Your task to perform on an android device: uninstall "Google Chat" Image 0: 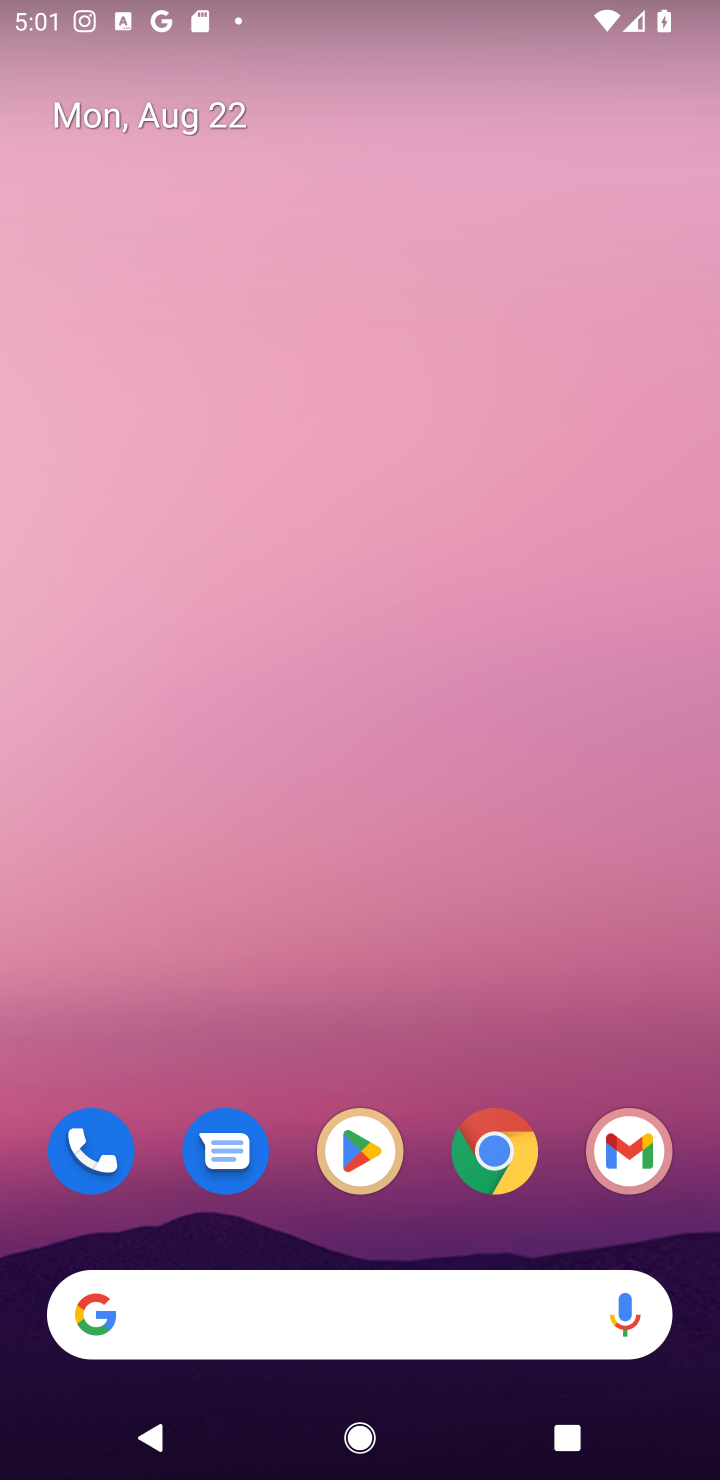
Step 0: click (366, 1156)
Your task to perform on an android device: uninstall "Google Chat" Image 1: 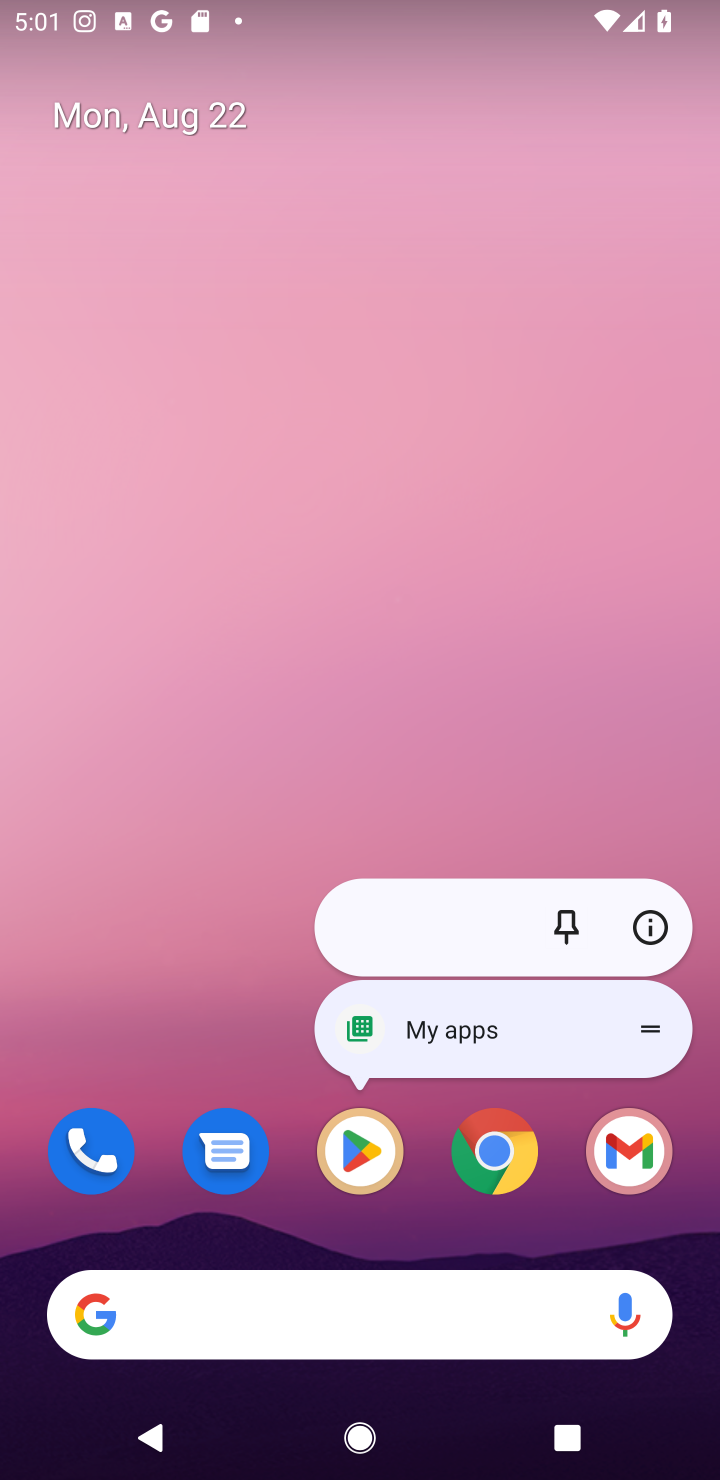
Step 1: click (357, 1165)
Your task to perform on an android device: uninstall "Google Chat" Image 2: 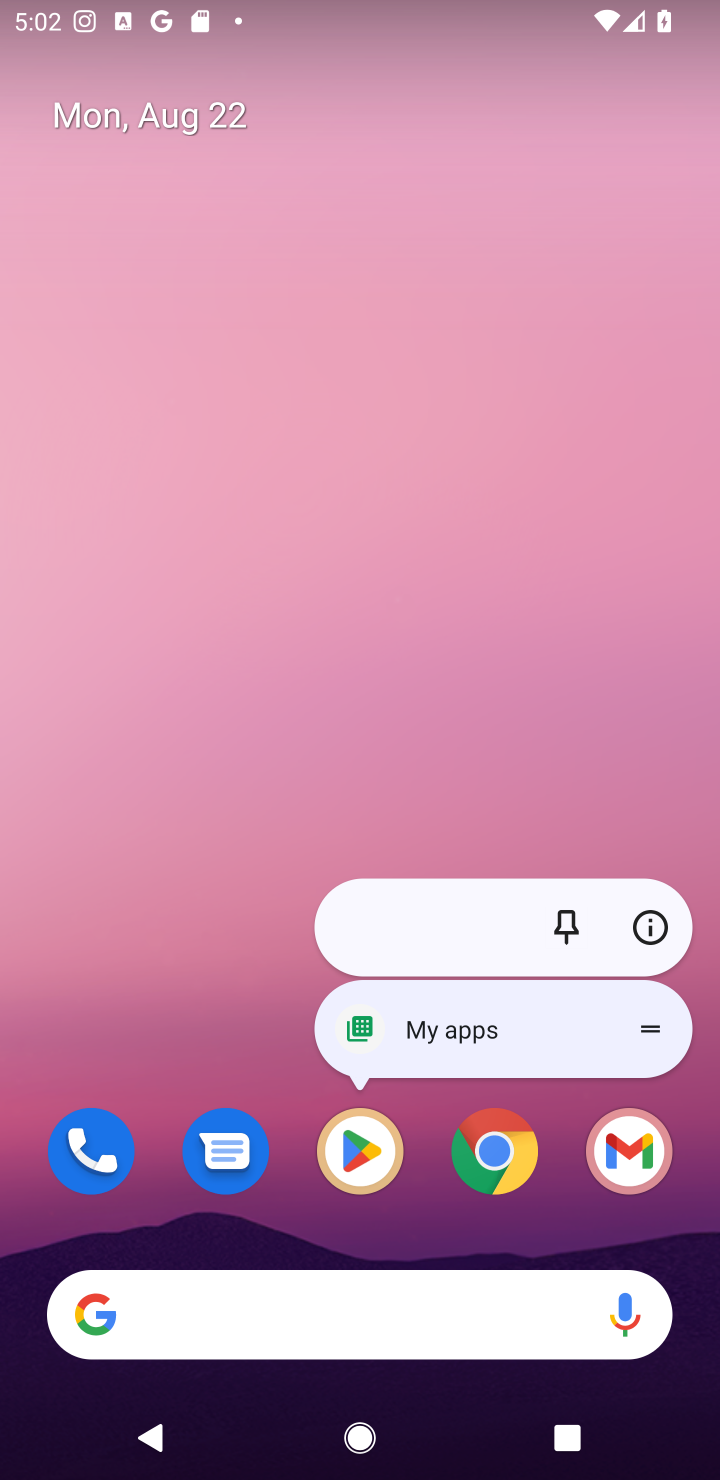
Step 2: click (351, 1169)
Your task to perform on an android device: uninstall "Google Chat" Image 3: 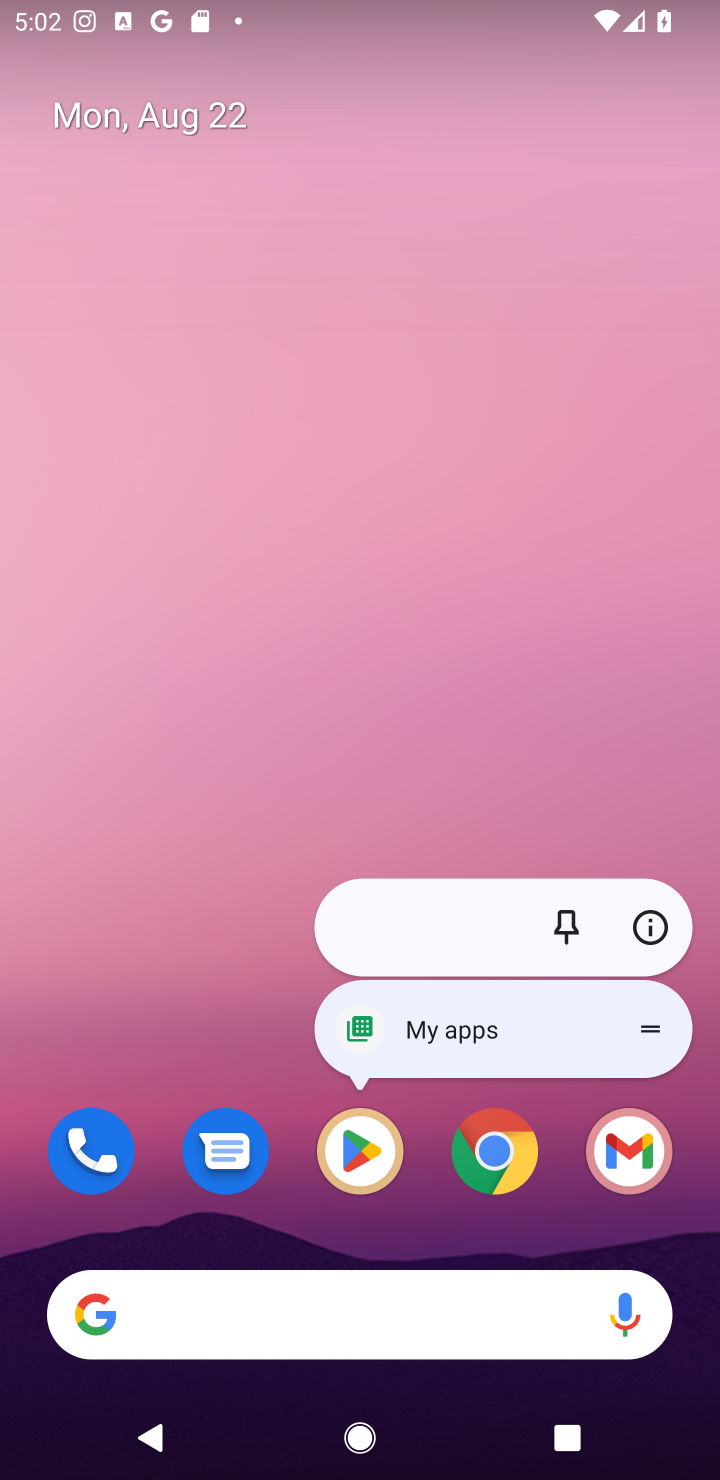
Step 3: click (351, 1171)
Your task to perform on an android device: uninstall "Google Chat" Image 4: 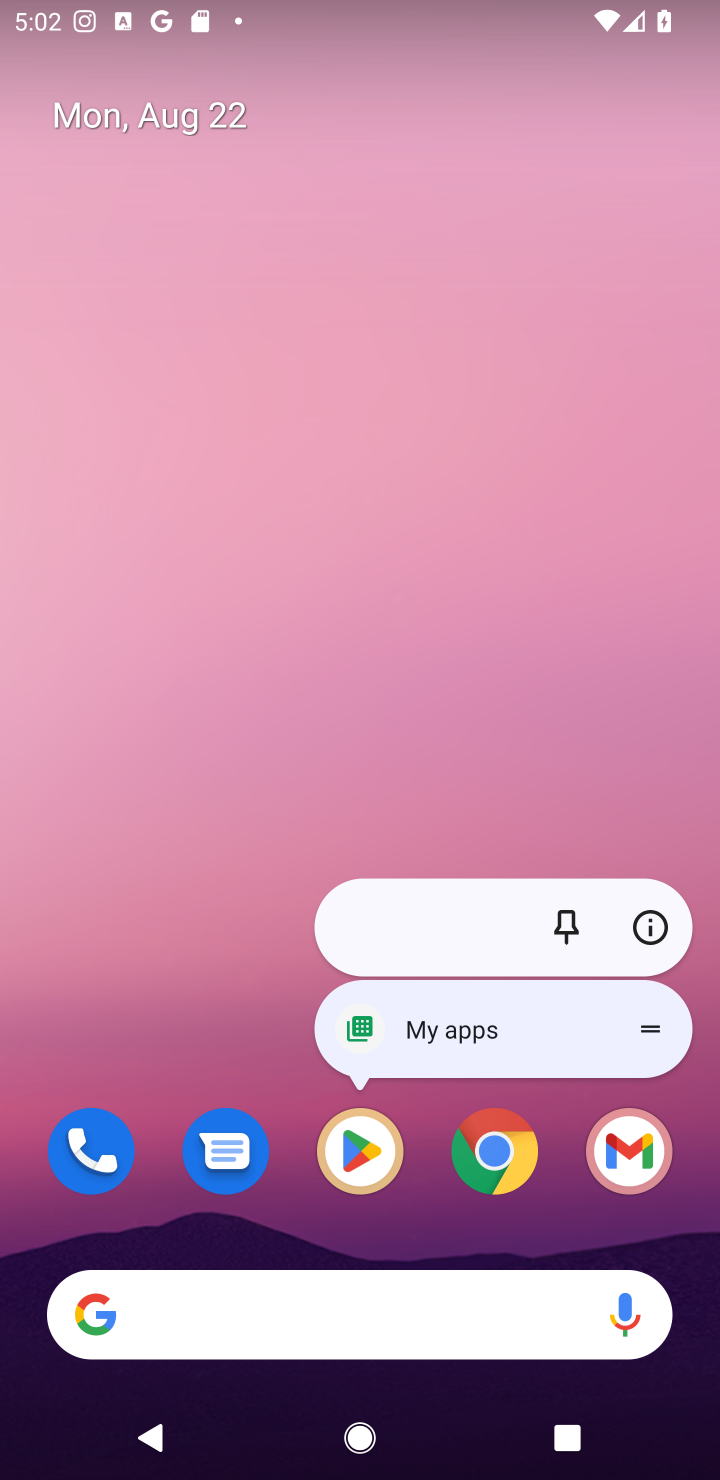
Step 4: click (359, 1163)
Your task to perform on an android device: uninstall "Google Chat" Image 5: 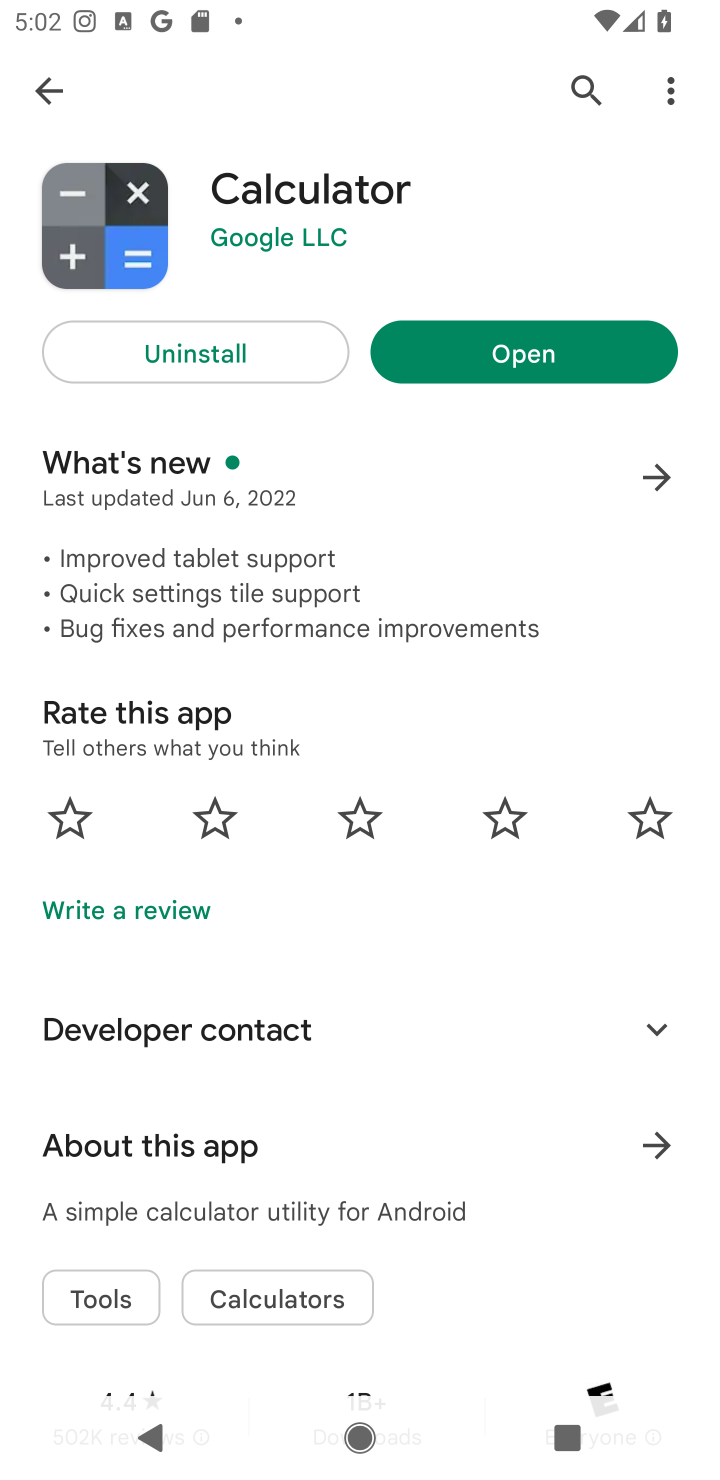
Step 5: click (578, 81)
Your task to perform on an android device: uninstall "Google Chat" Image 6: 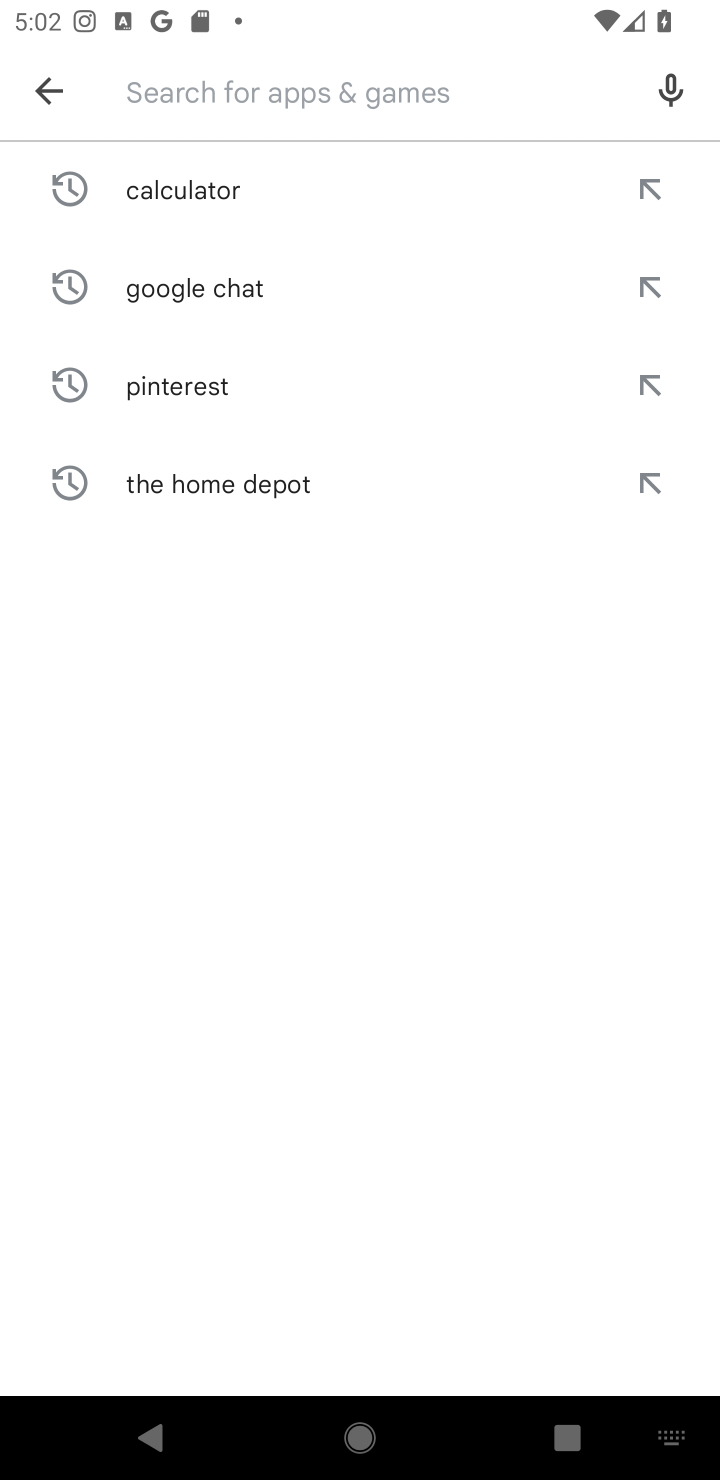
Step 6: type "Google Chat"
Your task to perform on an android device: uninstall "Google Chat" Image 7: 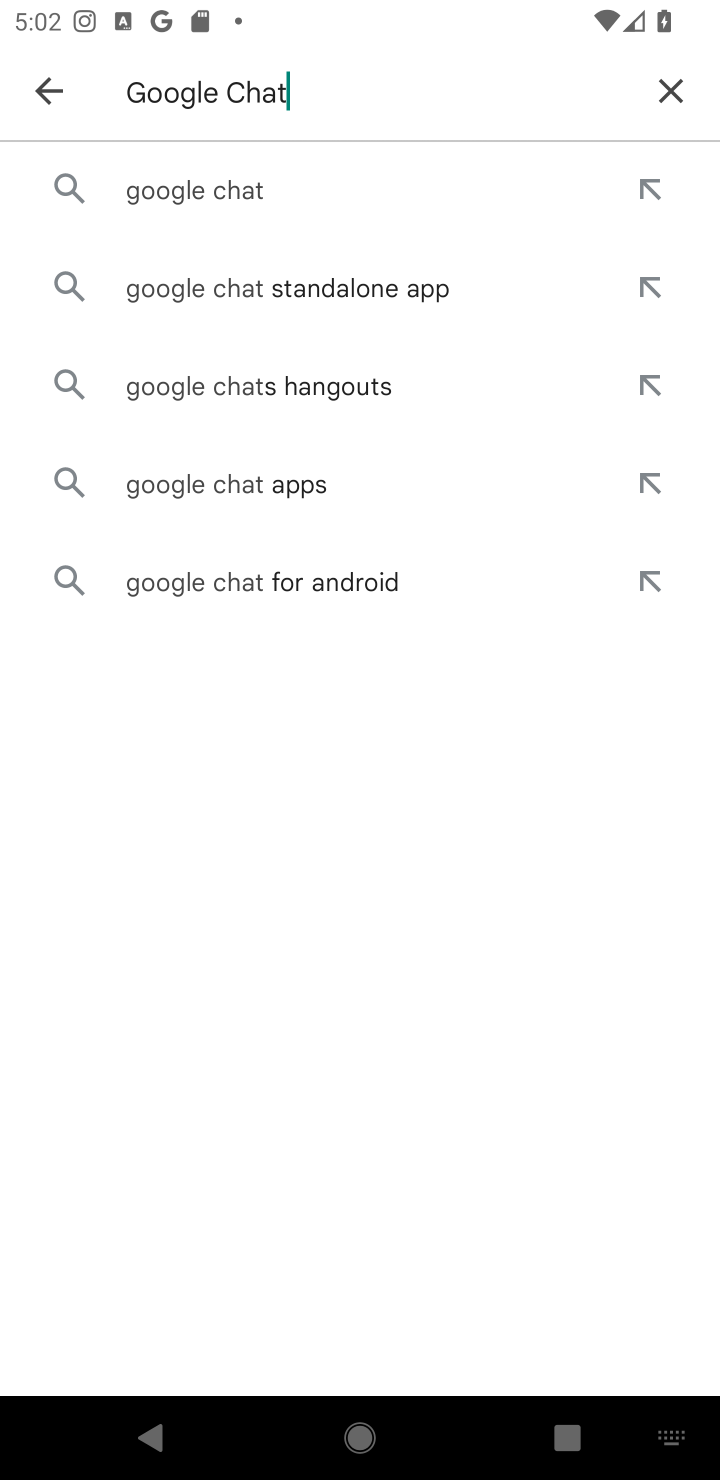
Step 7: click (157, 199)
Your task to perform on an android device: uninstall "Google Chat" Image 8: 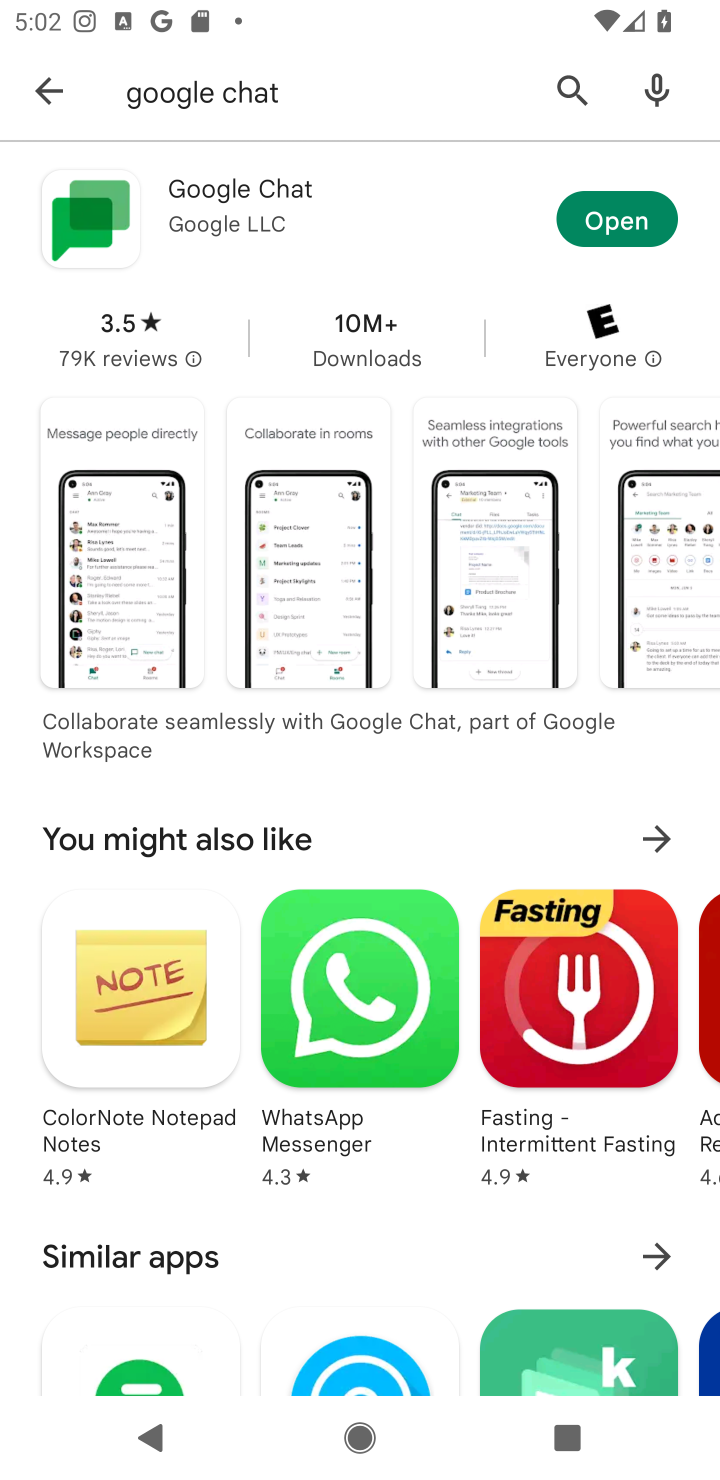
Step 8: click (157, 190)
Your task to perform on an android device: uninstall "Google Chat" Image 9: 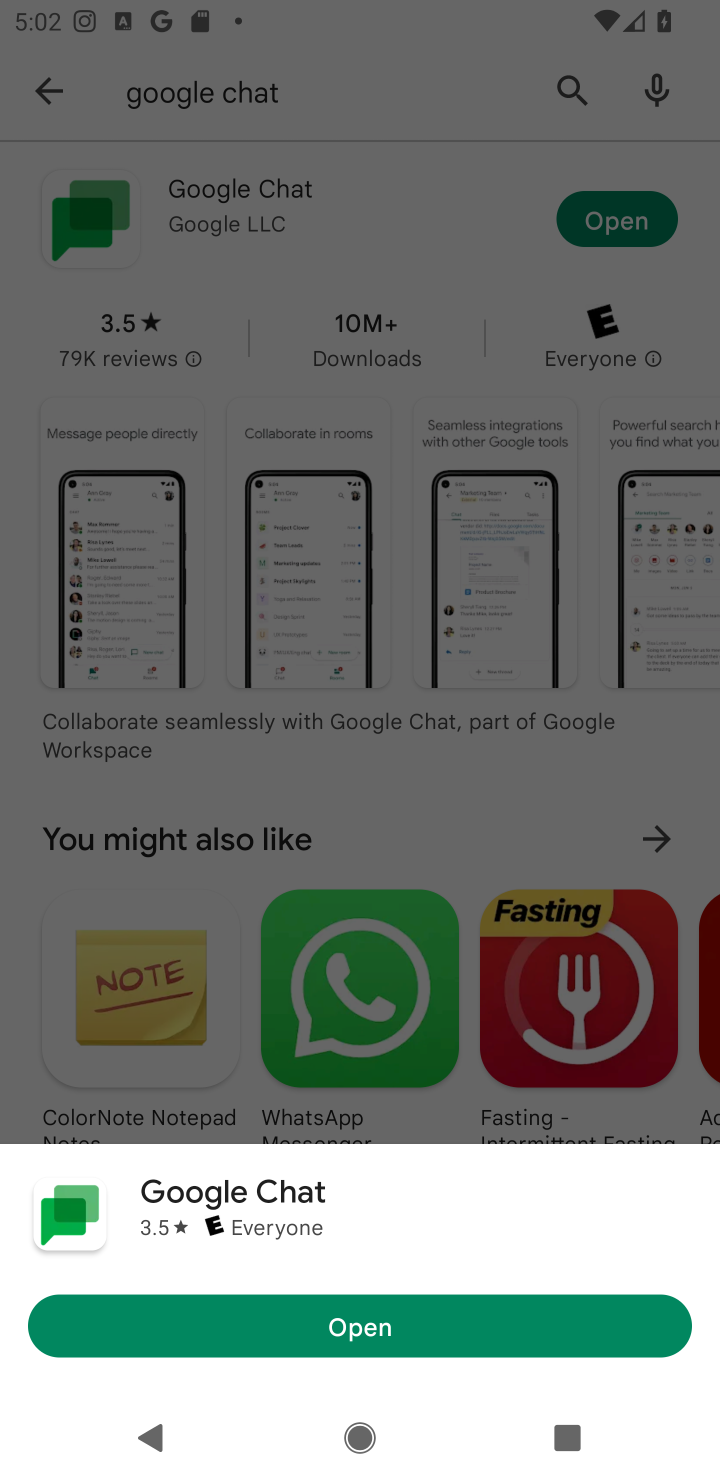
Step 9: click (76, 243)
Your task to perform on an android device: uninstall "Google Chat" Image 10: 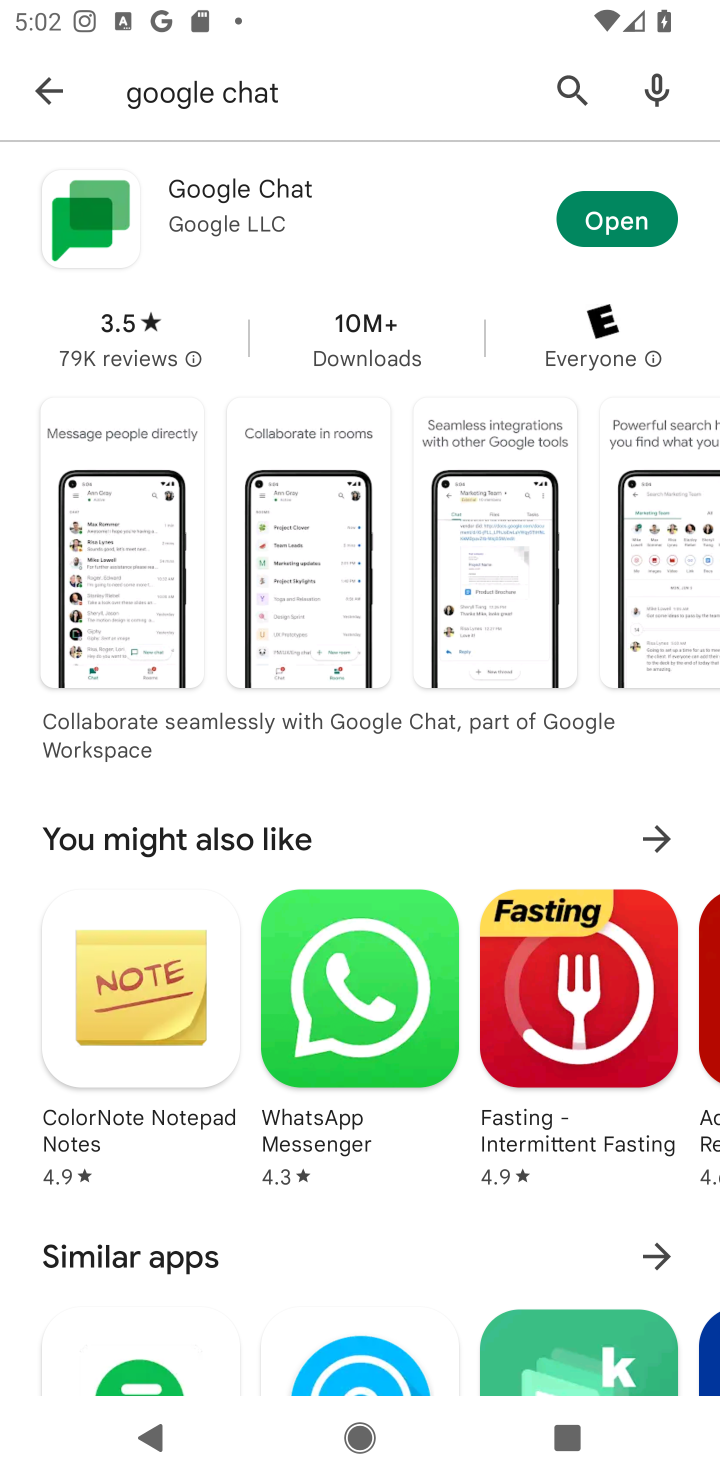
Step 10: click (95, 195)
Your task to perform on an android device: uninstall "Google Chat" Image 11: 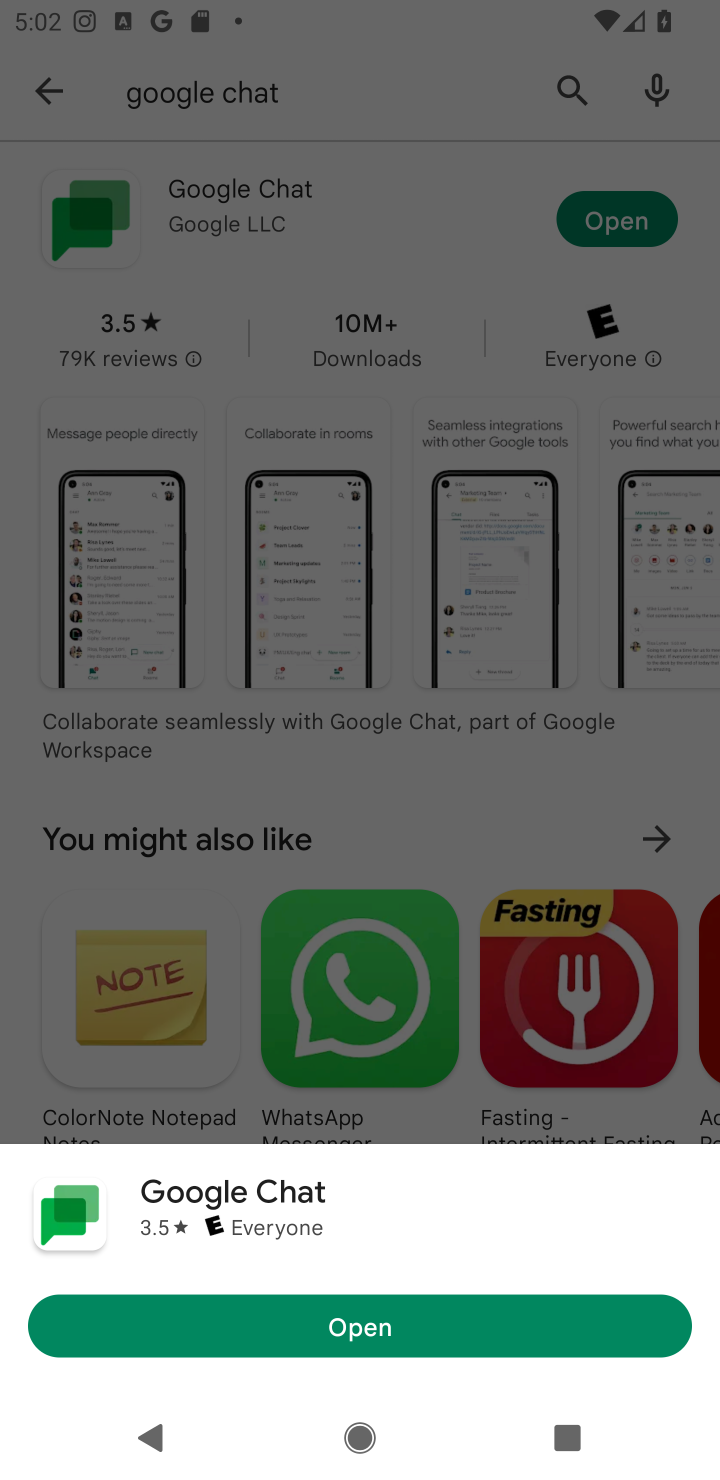
Step 11: click (231, 209)
Your task to perform on an android device: uninstall "Google Chat" Image 12: 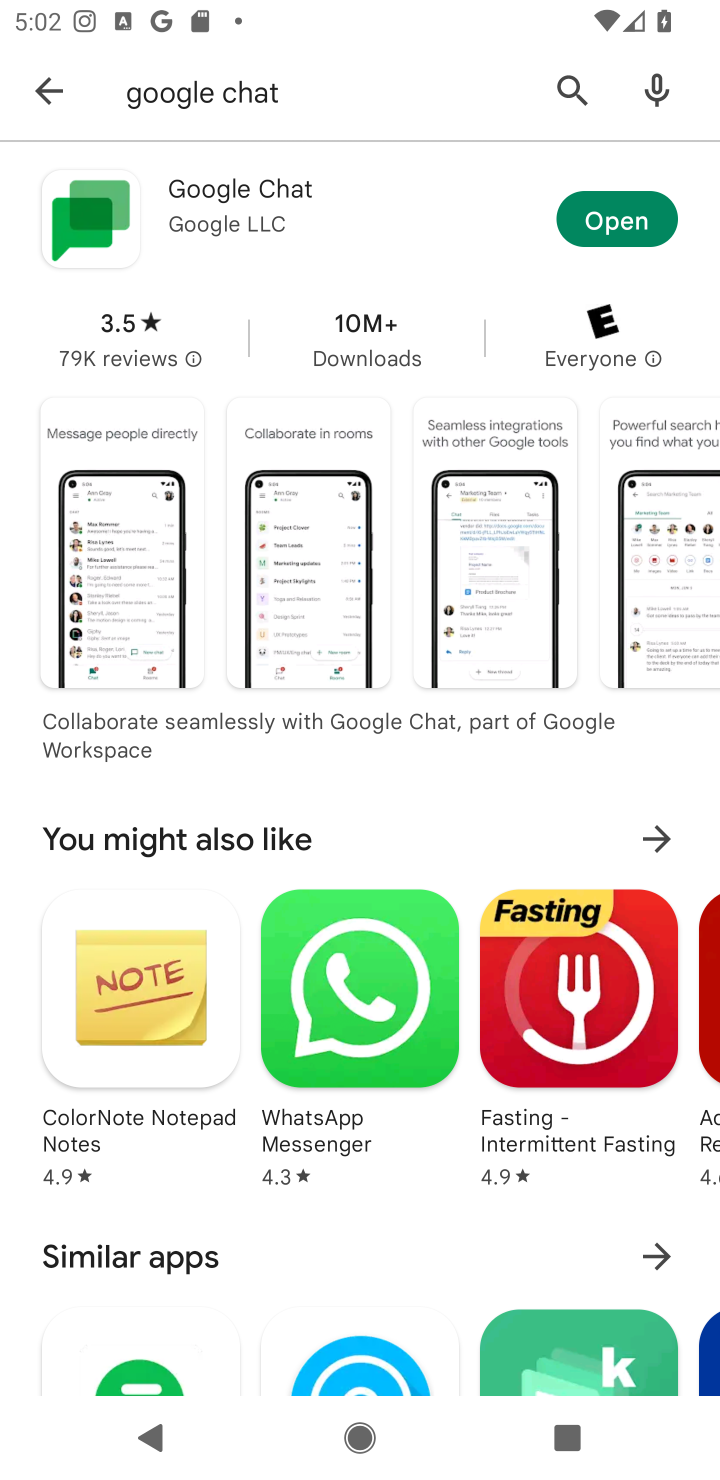
Step 12: click (205, 189)
Your task to perform on an android device: uninstall "Google Chat" Image 13: 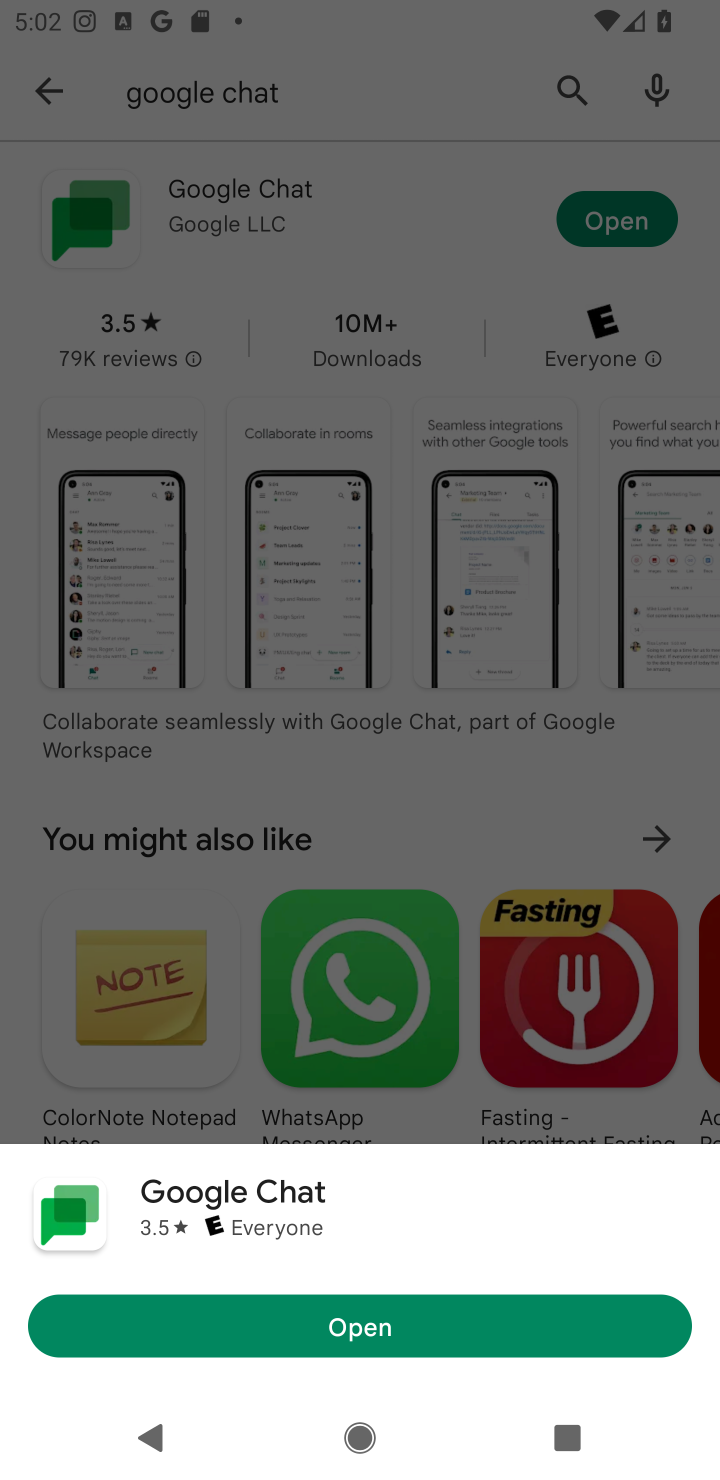
Step 13: click (98, 233)
Your task to perform on an android device: uninstall "Google Chat" Image 14: 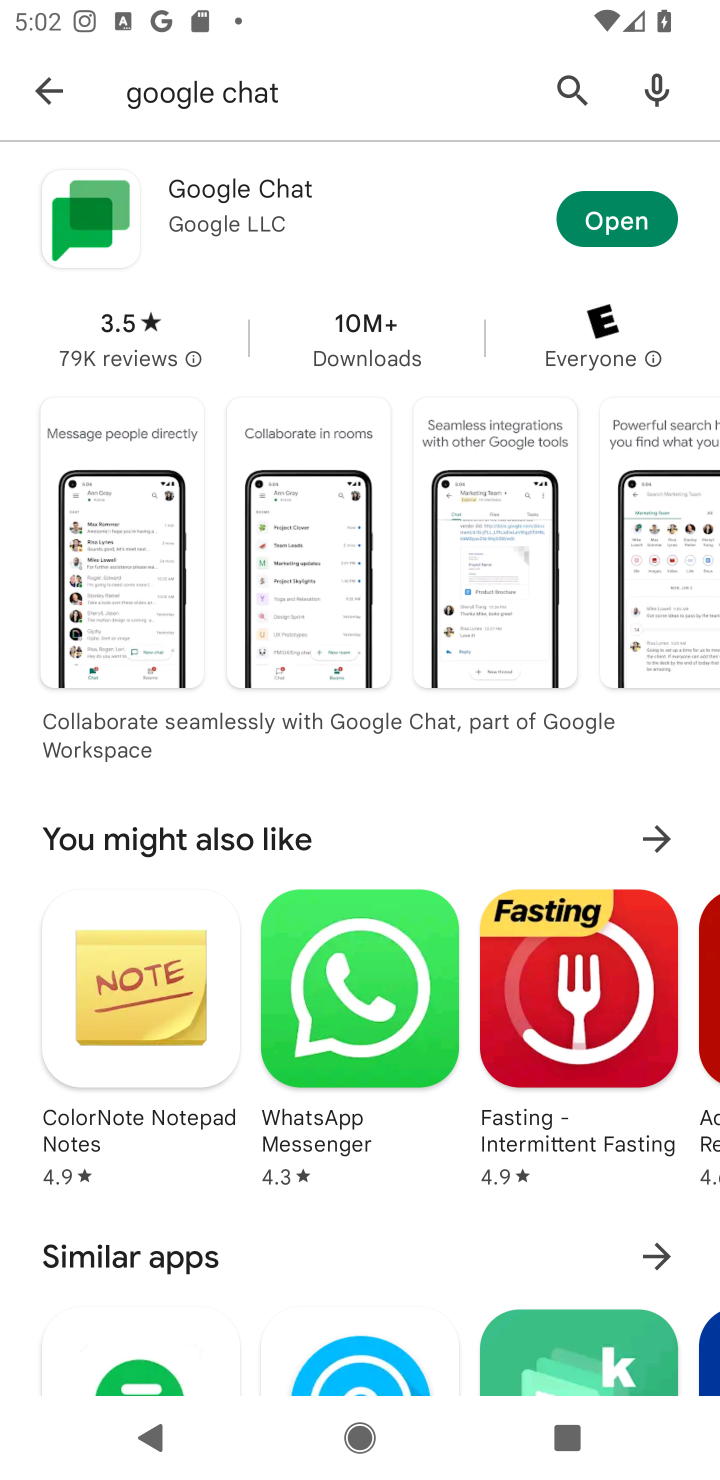
Step 14: click (98, 220)
Your task to perform on an android device: uninstall "Google Chat" Image 15: 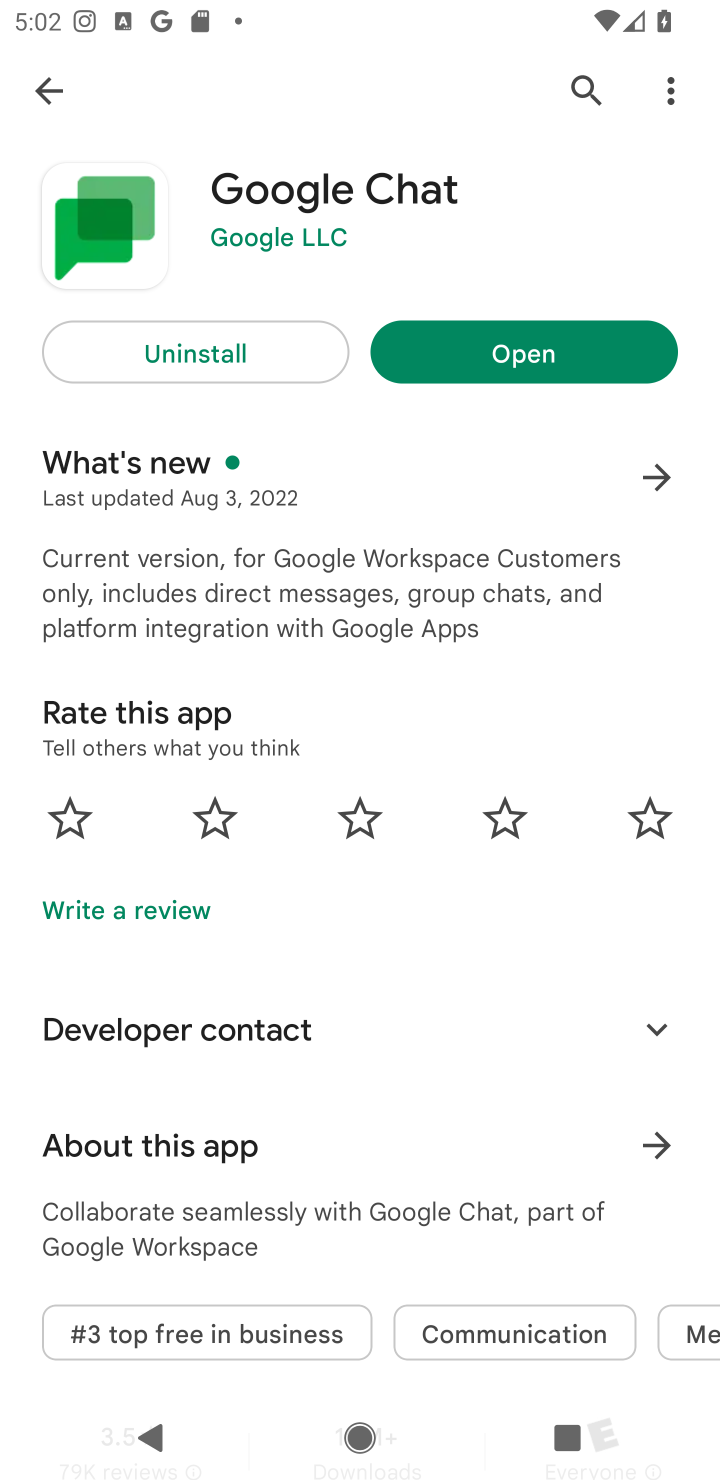
Step 15: click (187, 349)
Your task to perform on an android device: uninstall "Google Chat" Image 16: 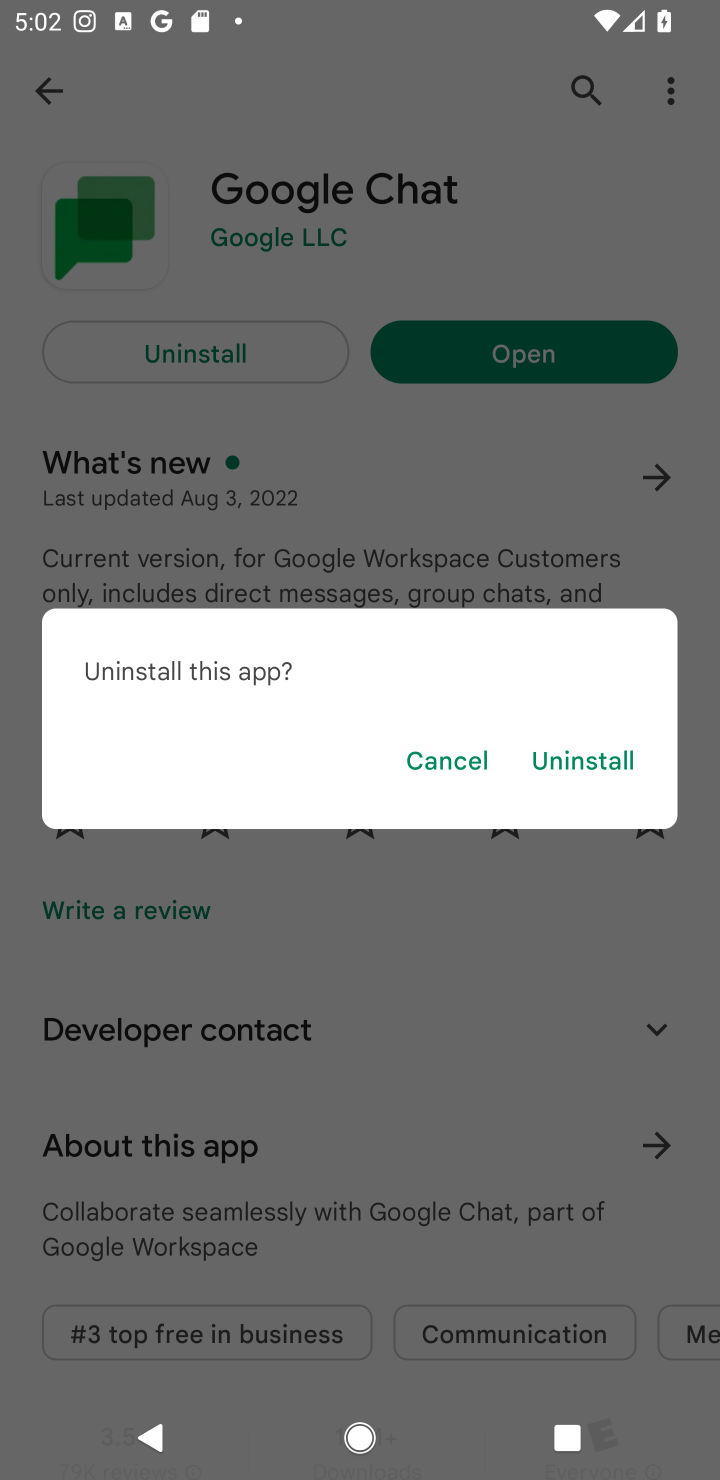
Step 16: click (575, 765)
Your task to perform on an android device: uninstall "Google Chat" Image 17: 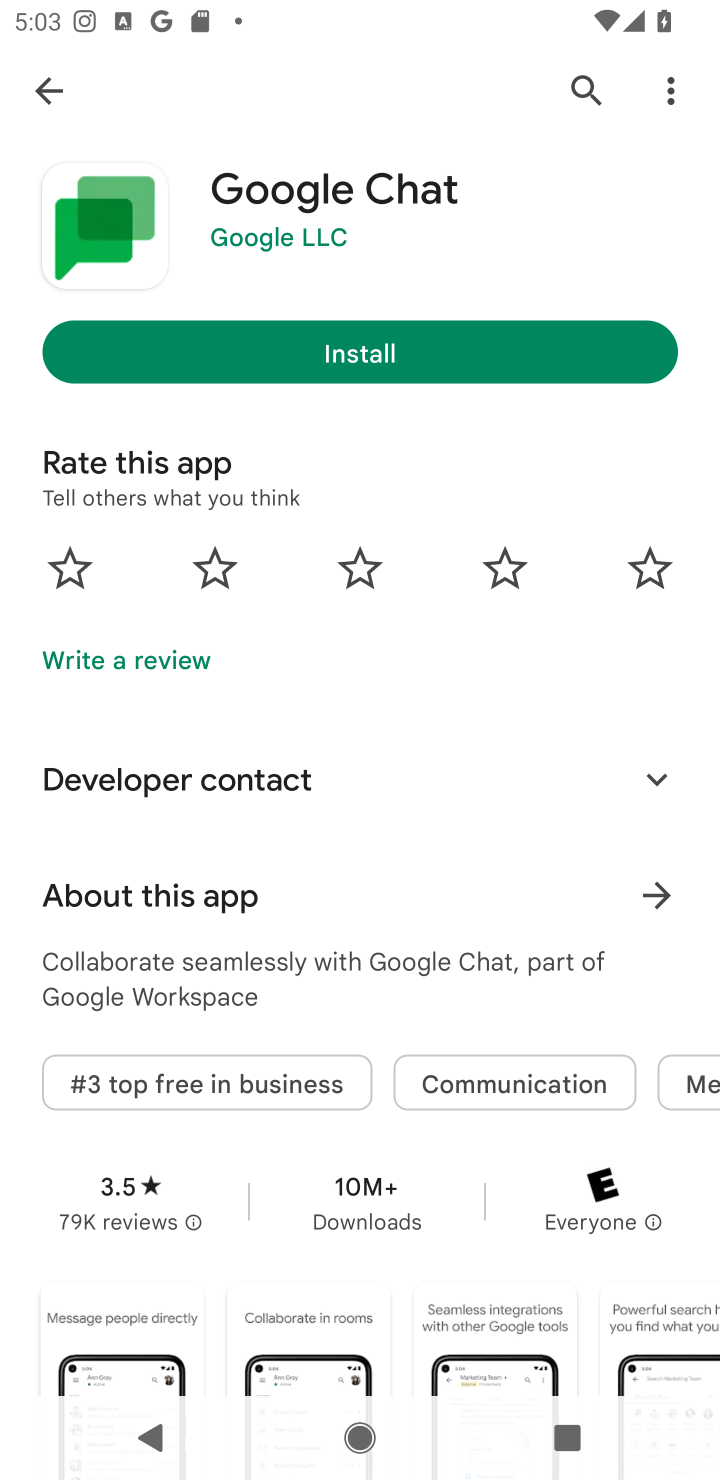
Step 17: task complete